Your task to perform on an android device: empty trash in the gmail app Image 0: 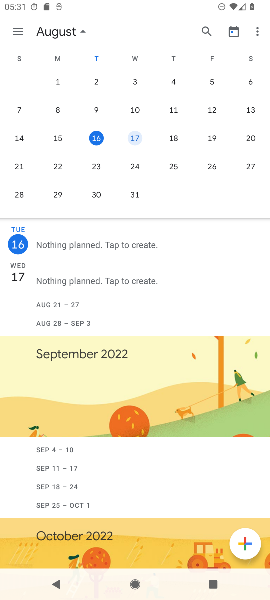
Step 0: press home button
Your task to perform on an android device: empty trash in the gmail app Image 1: 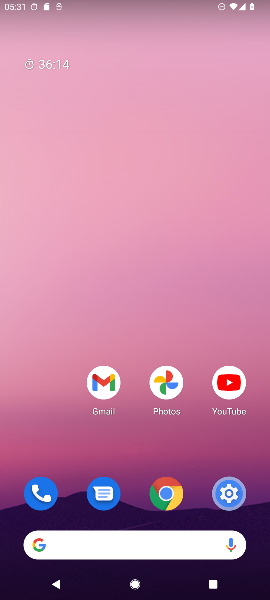
Step 1: drag from (64, 459) to (75, 123)
Your task to perform on an android device: empty trash in the gmail app Image 2: 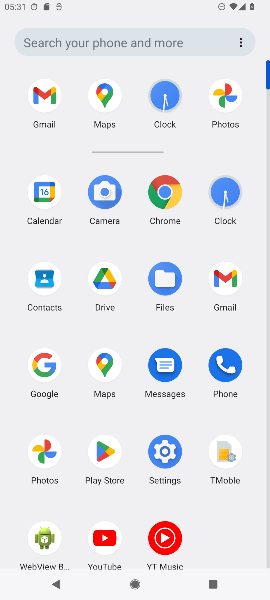
Step 2: click (222, 277)
Your task to perform on an android device: empty trash in the gmail app Image 3: 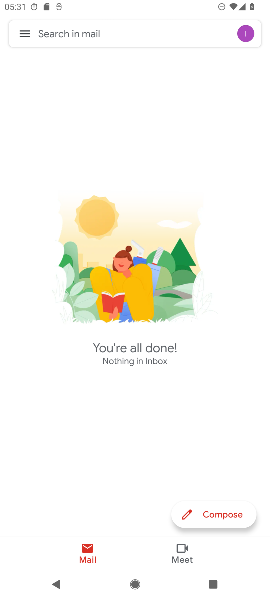
Step 3: click (24, 31)
Your task to perform on an android device: empty trash in the gmail app Image 4: 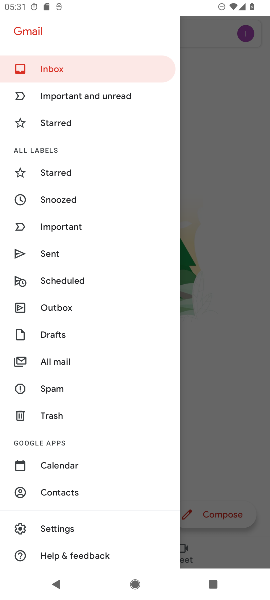
Step 4: click (70, 409)
Your task to perform on an android device: empty trash in the gmail app Image 5: 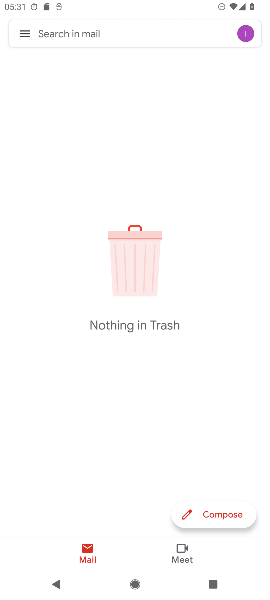
Step 5: task complete